Your task to perform on an android device: Go to ESPN.com Image 0: 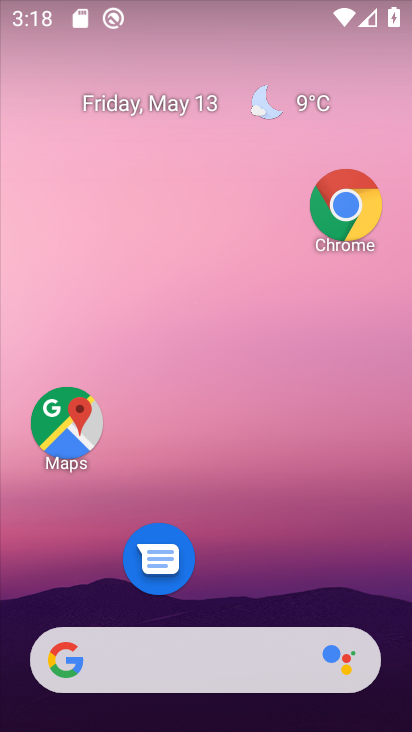
Step 0: click (337, 208)
Your task to perform on an android device: Go to ESPN.com Image 1: 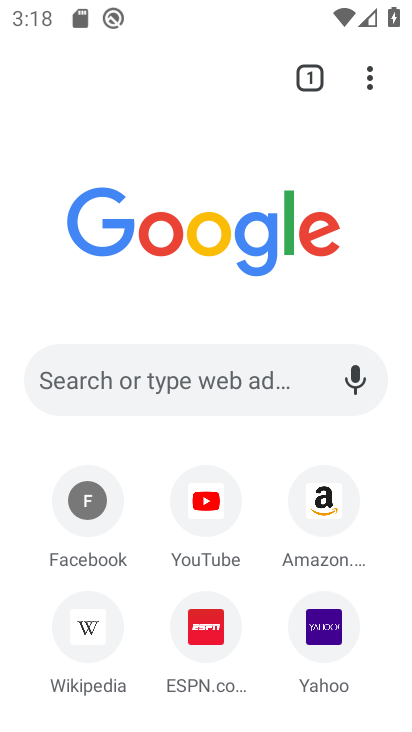
Step 1: click (223, 631)
Your task to perform on an android device: Go to ESPN.com Image 2: 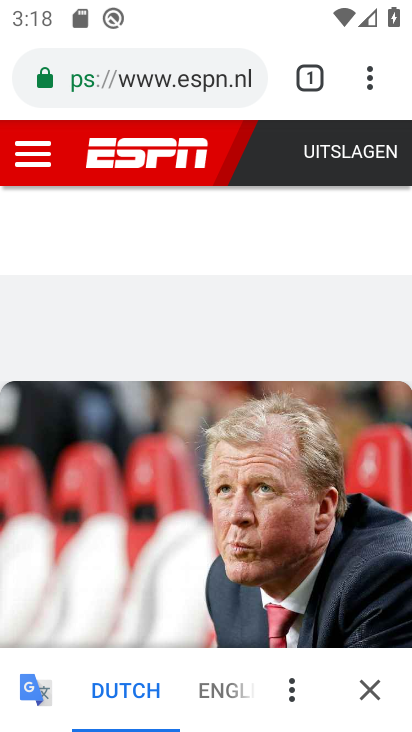
Step 2: task complete